Your task to perform on an android device: turn on location history Image 0: 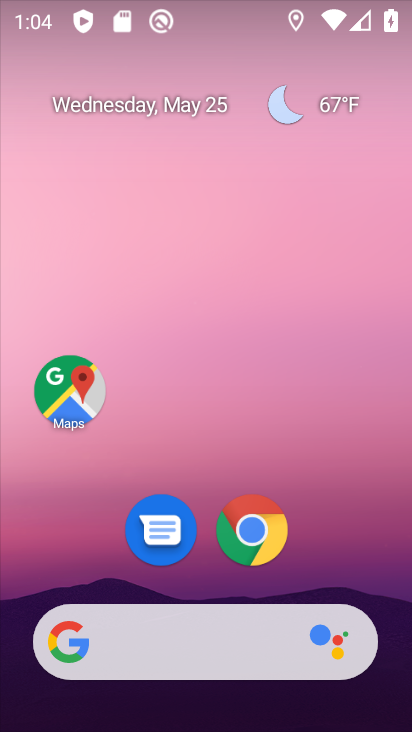
Step 0: drag from (344, 560) to (275, 144)
Your task to perform on an android device: turn on location history Image 1: 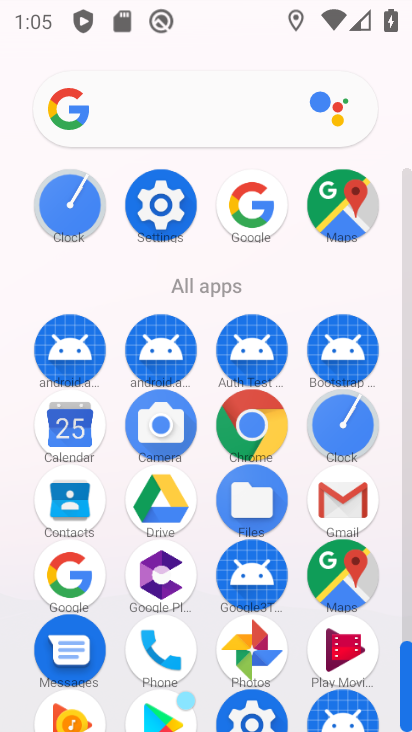
Step 1: click (163, 202)
Your task to perform on an android device: turn on location history Image 2: 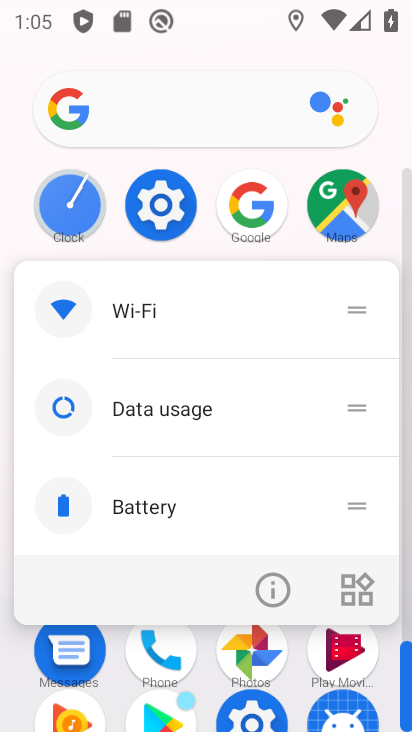
Step 2: click (163, 204)
Your task to perform on an android device: turn on location history Image 3: 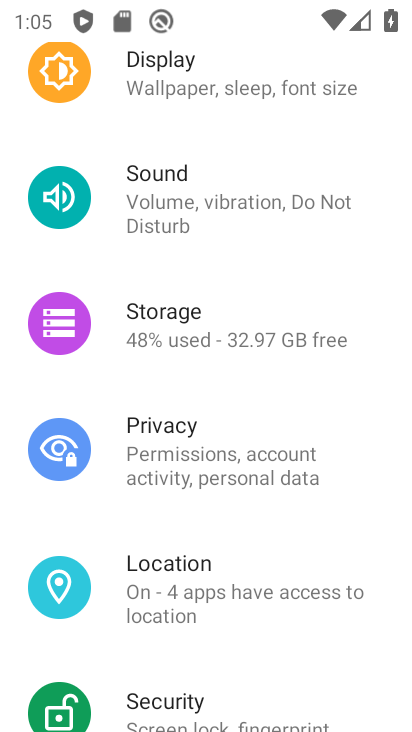
Step 3: drag from (186, 385) to (231, 270)
Your task to perform on an android device: turn on location history Image 4: 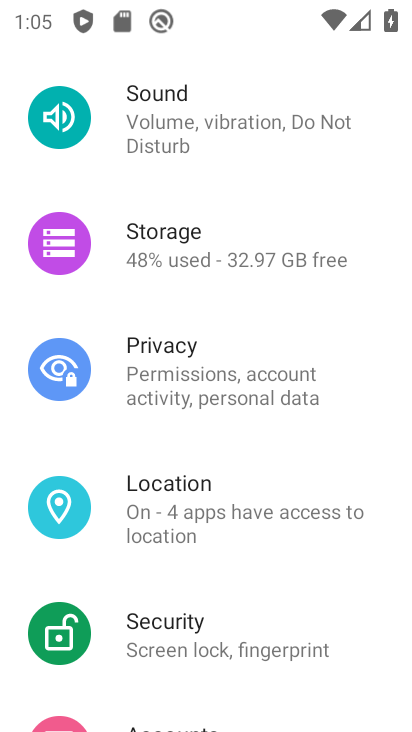
Step 4: click (200, 489)
Your task to perform on an android device: turn on location history Image 5: 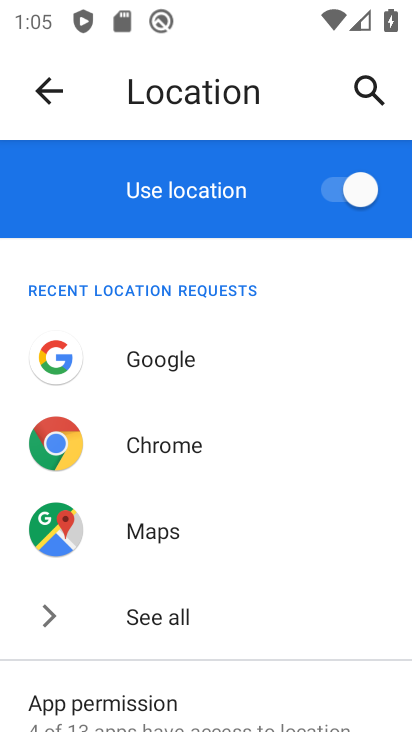
Step 5: drag from (151, 489) to (161, 362)
Your task to perform on an android device: turn on location history Image 6: 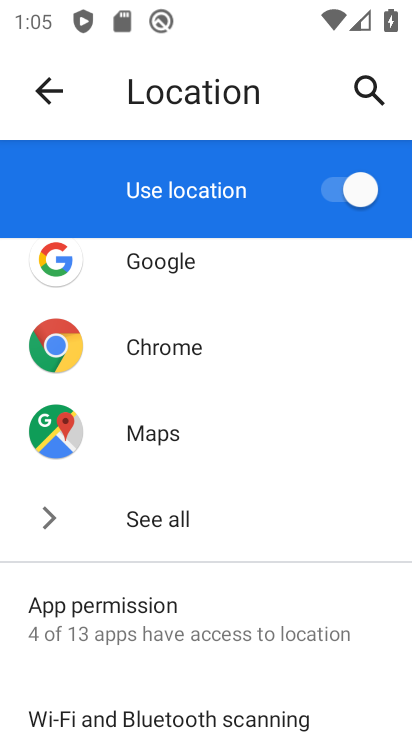
Step 6: drag from (196, 585) to (221, 389)
Your task to perform on an android device: turn on location history Image 7: 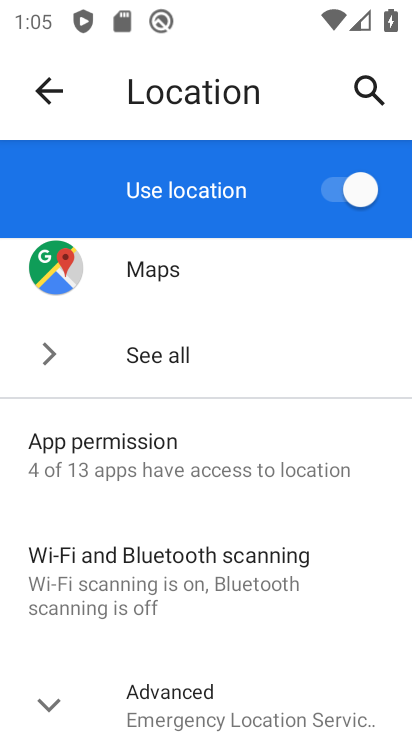
Step 7: drag from (132, 645) to (173, 458)
Your task to perform on an android device: turn on location history Image 8: 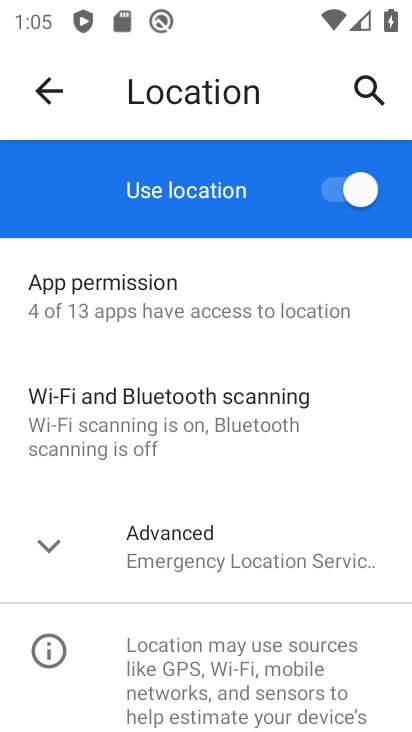
Step 8: click (208, 558)
Your task to perform on an android device: turn on location history Image 9: 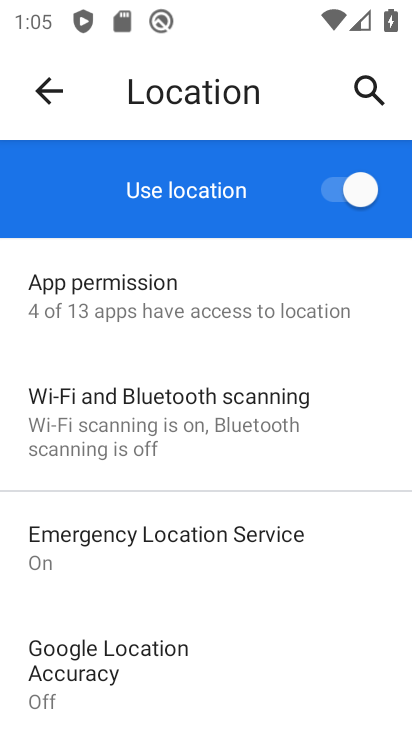
Step 9: task complete